Your task to perform on an android device: visit the assistant section in the google photos Image 0: 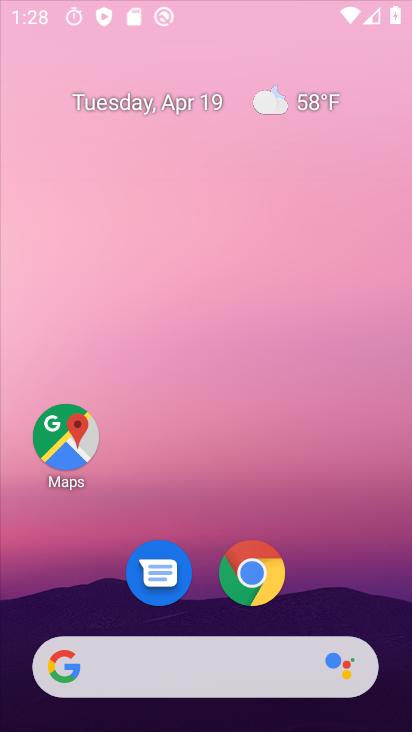
Step 0: click (49, 91)
Your task to perform on an android device: visit the assistant section in the google photos Image 1: 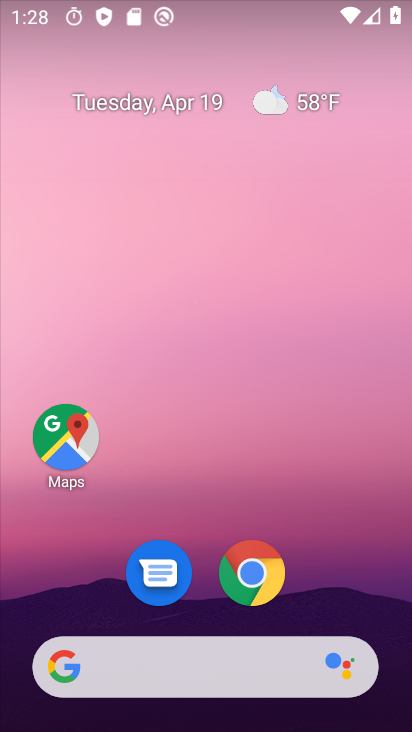
Step 1: drag from (325, 596) to (230, 84)
Your task to perform on an android device: visit the assistant section in the google photos Image 2: 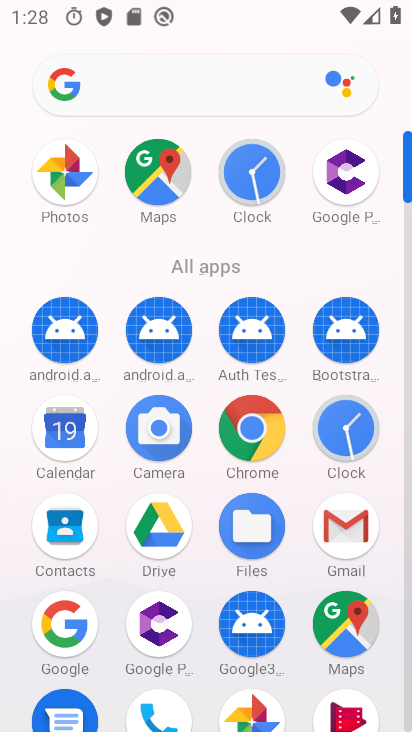
Step 2: click (49, 180)
Your task to perform on an android device: visit the assistant section in the google photos Image 3: 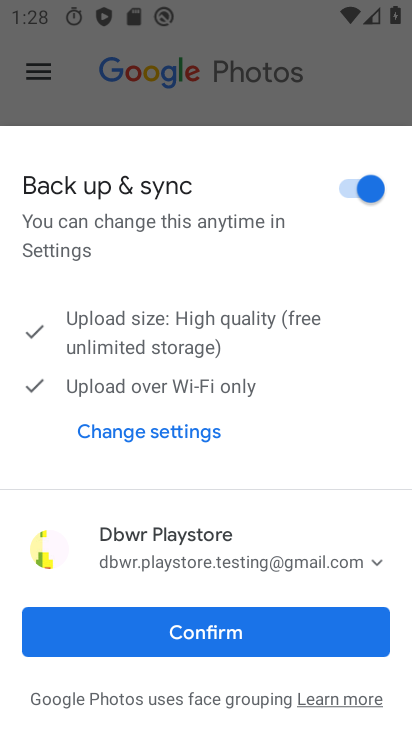
Step 3: click (216, 636)
Your task to perform on an android device: visit the assistant section in the google photos Image 4: 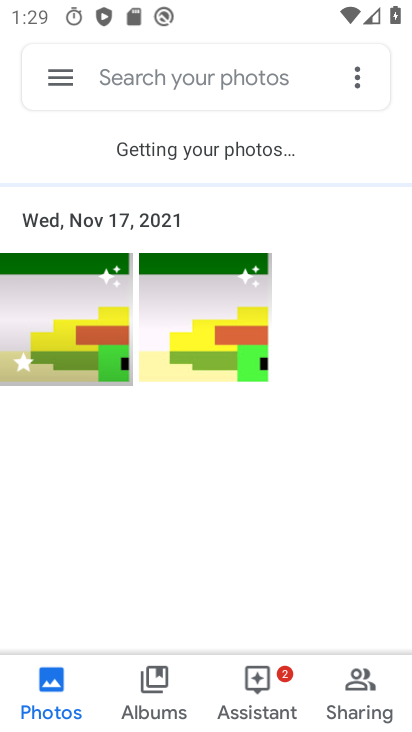
Step 4: click (271, 693)
Your task to perform on an android device: visit the assistant section in the google photos Image 5: 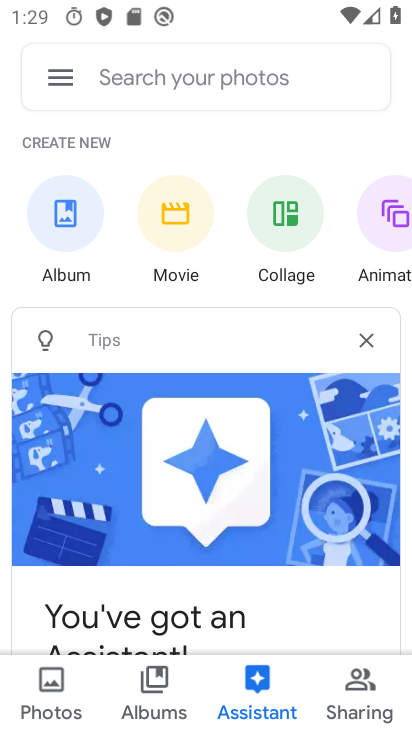
Step 5: task complete